Your task to perform on an android device: see tabs open on other devices in the chrome app Image 0: 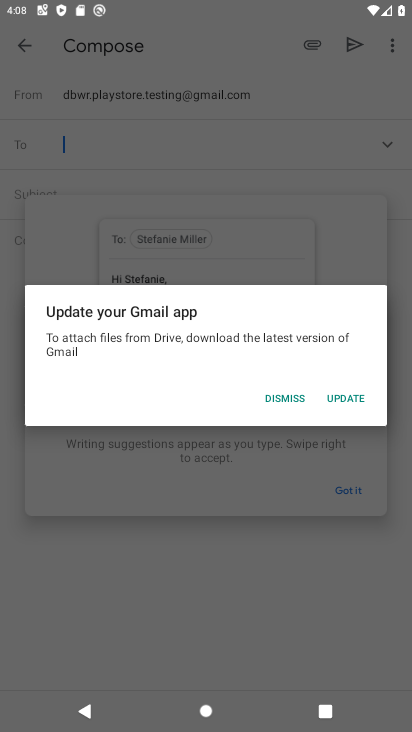
Step 0: press home button
Your task to perform on an android device: see tabs open on other devices in the chrome app Image 1: 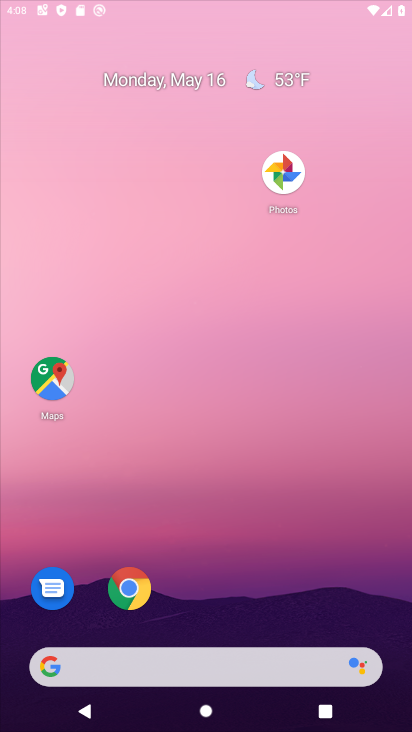
Step 1: press home button
Your task to perform on an android device: see tabs open on other devices in the chrome app Image 2: 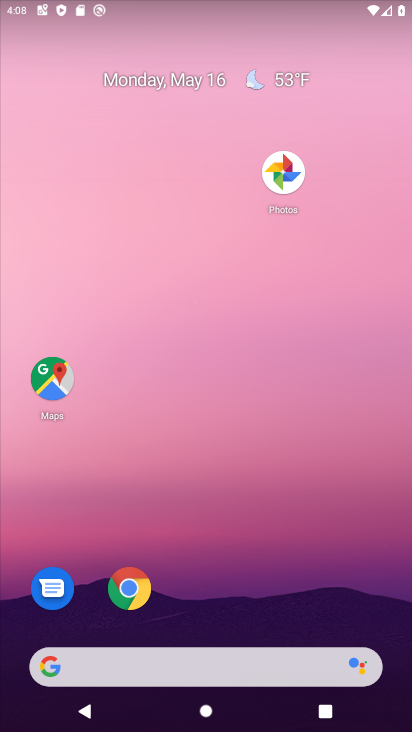
Step 2: click (130, 589)
Your task to perform on an android device: see tabs open on other devices in the chrome app Image 3: 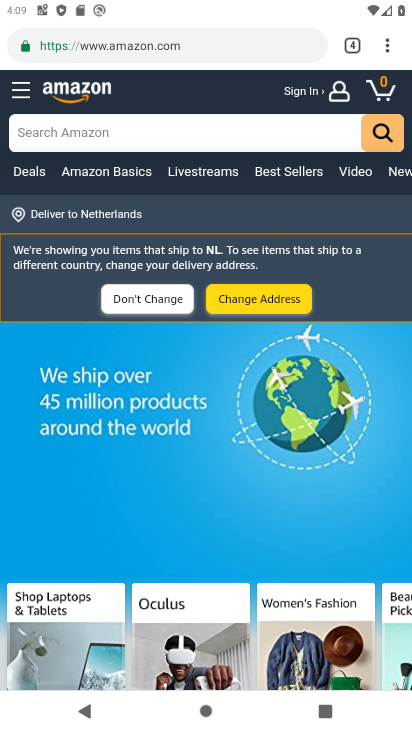
Step 3: click (382, 38)
Your task to perform on an android device: see tabs open on other devices in the chrome app Image 4: 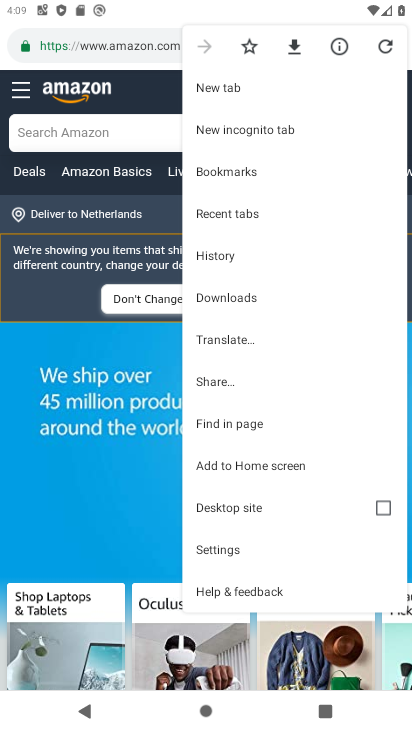
Step 4: click (255, 215)
Your task to perform on an android device: see tabs open on other devices in the chrome app Image 5: 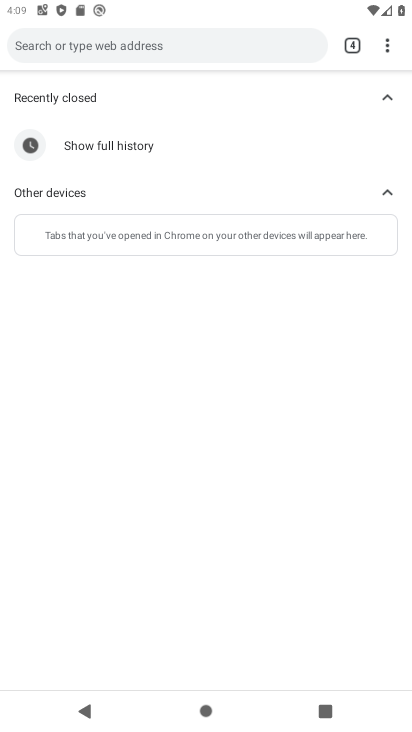
Step 5: task complete